Your task to perform on an android device: Open Chrome and go to settings Image 0: 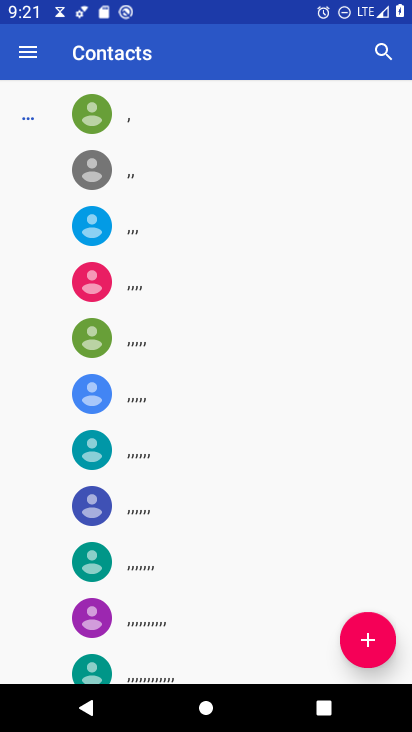
Step 0: press home button
Your task to perform on an android device: Open Chrome and go to settings Image 1: 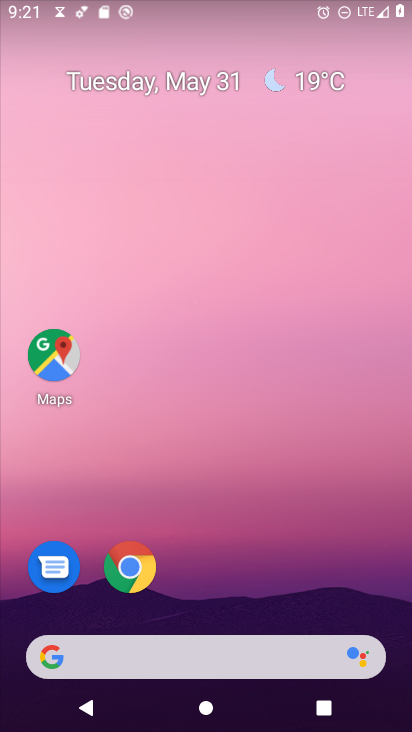
Step 1: drag from (225, 617) to (207, 320)
Your task to perform on an android device: Open Chrome and go to settings Image 2: 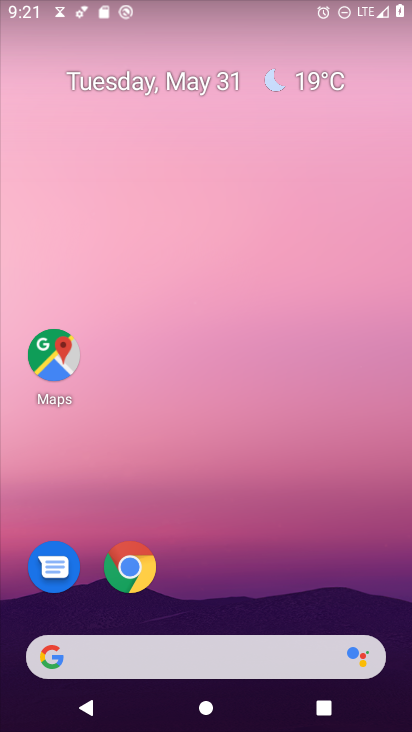
Step 2: click (120, 583)
Your task to perform on an android device: Open Chrome and go to settings Image 3: 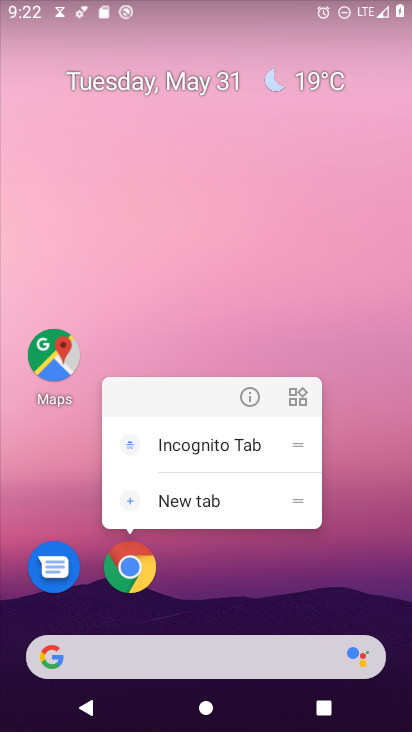
Step 3: click (139, 561)
Your task to perform on an android device: Open Chrome and go to settings Image 4: 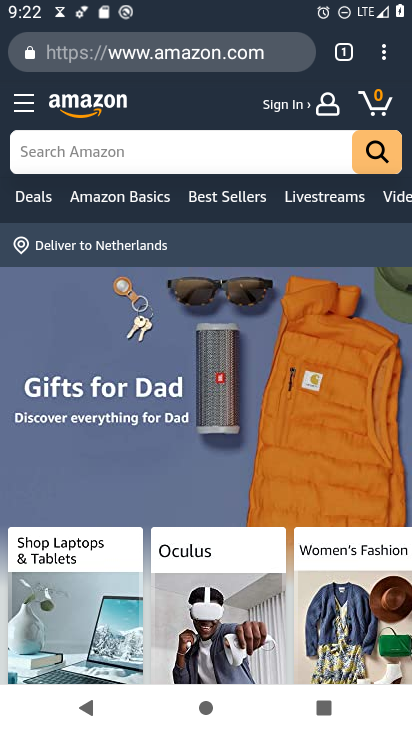
Step 4: click (385, 56)
Your task to perform on an android device: Open Chrome and go to settings Image 5: 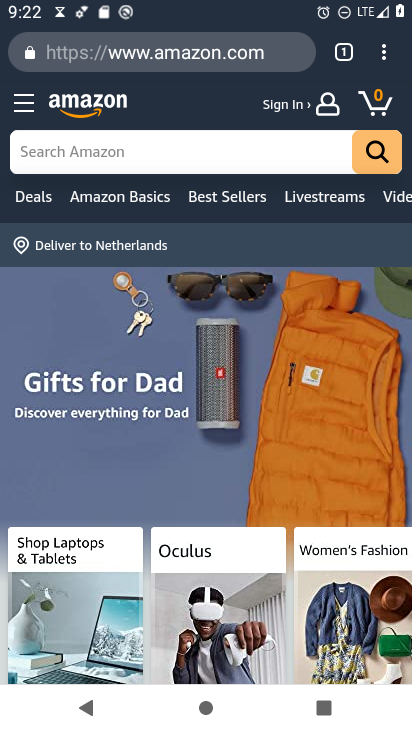
Step 5: click (385, 56)
Your task to perform on an android device: Open Chrome and go to settings Image 6: 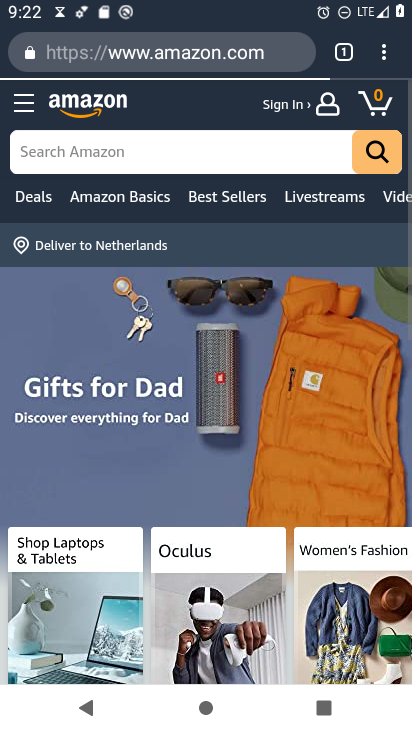
Step 6: click (385, 56)
Your task to perform on an android device: Open Chrome and go to settings Image 7: 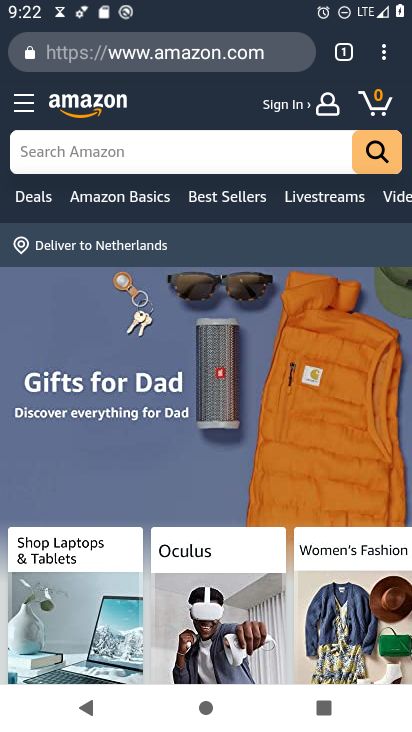
Step 7: click (385, 56)
Your task to perform on an android device: Open Chrome and go to settings Image 8: 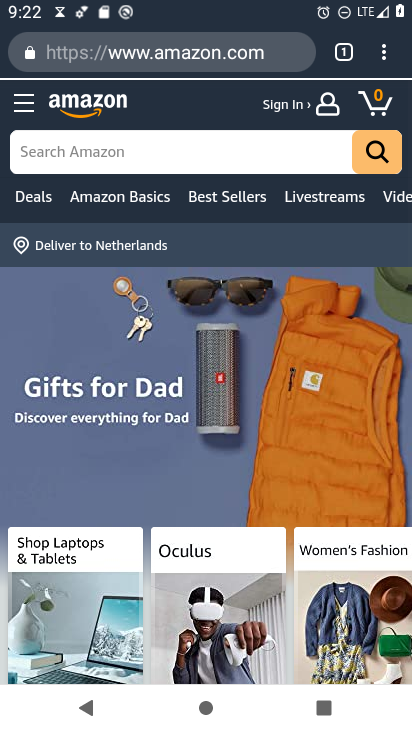
Step 8: click (393, 55)
Your task to perform on an android device: Open Chrome and go to settings Image 9: 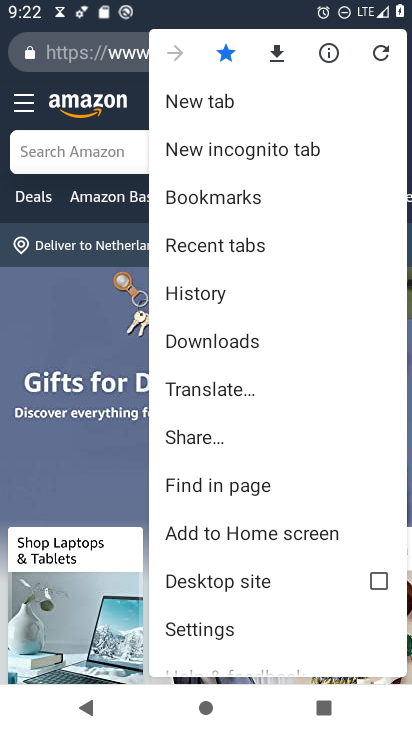
Step 9: click (225, 622)
Your task to perform on an android device: Open Chrome and go to settings Image 10: 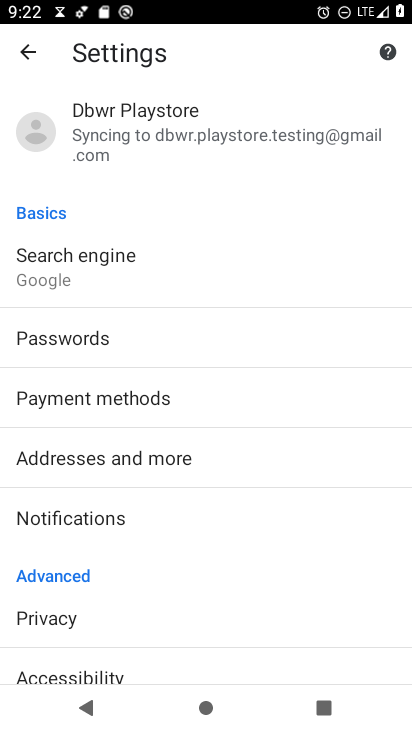
Step 10: task complete